Your task to perform on an android device: turn on wifi Image 0: 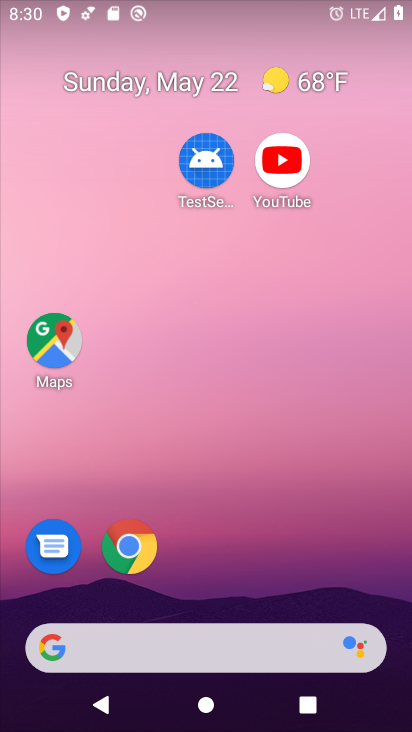
Step 0: click (187, 154)
Your task to perform on an android device: turn on wifi Image 1: 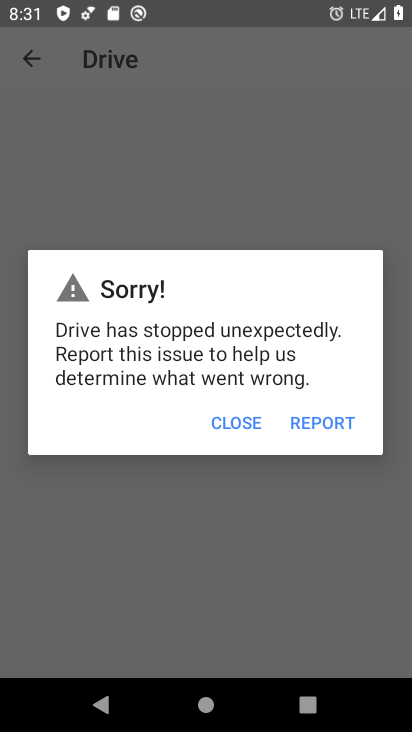
Step 1: click (238, 425)
Your task to perform on an android device: turn on wifi Image 2: 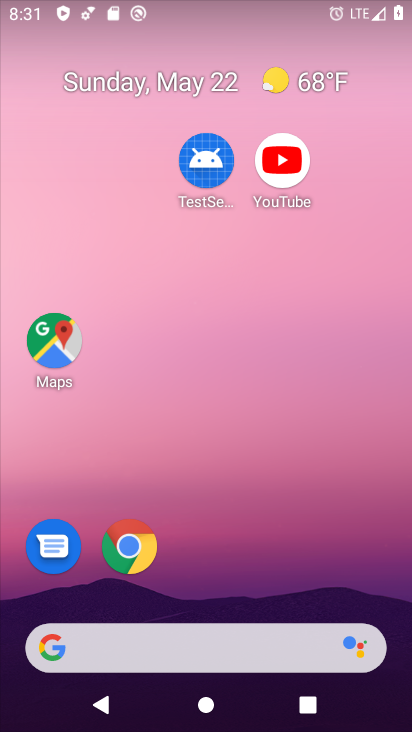
Step 2: drag from (209, 538) to (152, 61)
Your task to perform on an android device: turn on wifi Image 3: 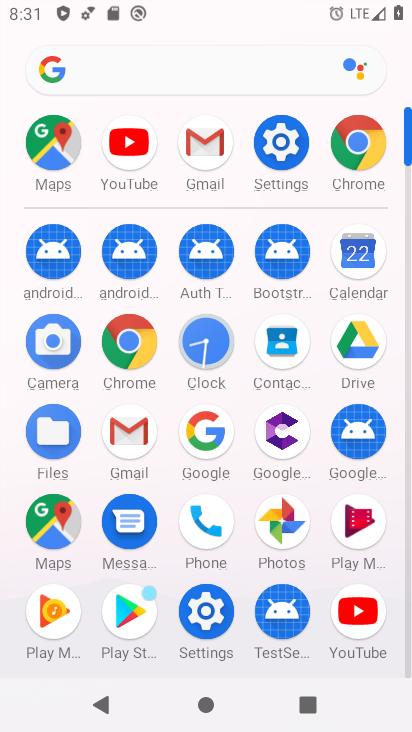
Step 3: click (276, 157)
Your task to perform on an android device: turn on wifi Image 4: 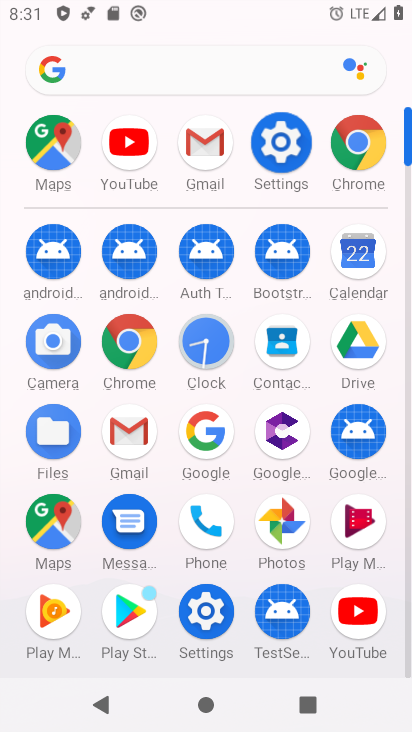
Step 4: click (281, 157)
Your task to perform on an android device: turn on wifi Image 5: 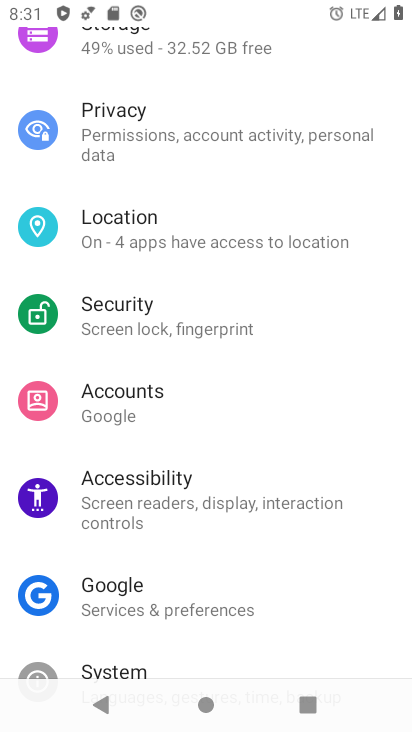
Step 5: drag from (147, 163) to (150, 470)
Your task to perform on an android device: turn on wifi Image 6: 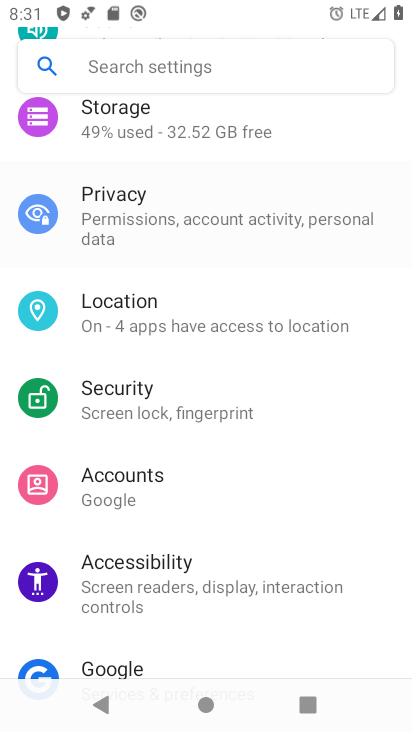
Step 6: drag from (123, 207) to (191, 610)
Your task to perform on an android device: turn on wifi Image 7: 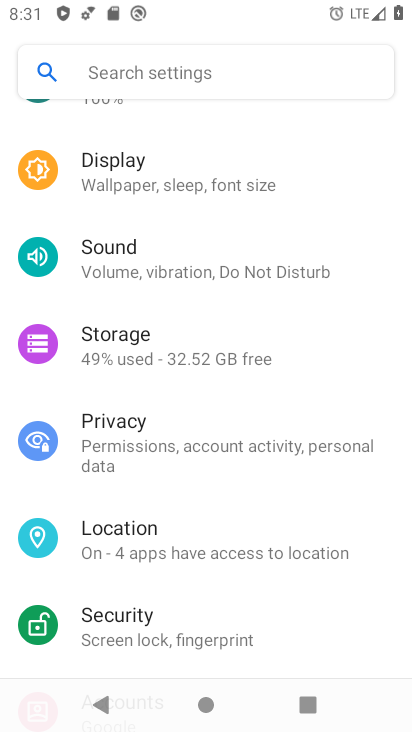
Step 7: drag from (176, 411) to (221, 597)
Your task to perform on an android device: turn on wifi Image 8: 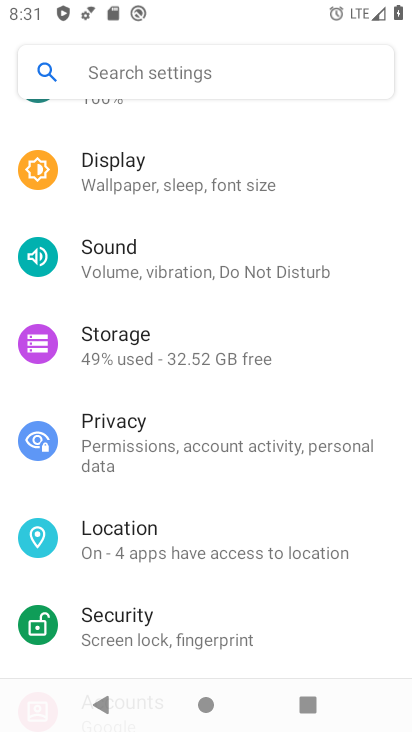
Step 8: drag from (179, 488) to (217, 605)
Your task to perform on an android device: turn on wifi Image 9: 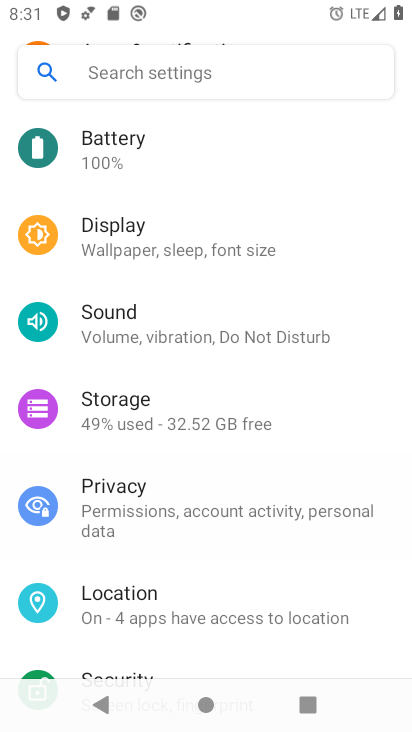
Step 9: drag from (185, 215) to (211, 479)
Your task to perform on an android device: turn on wifi Image 10: 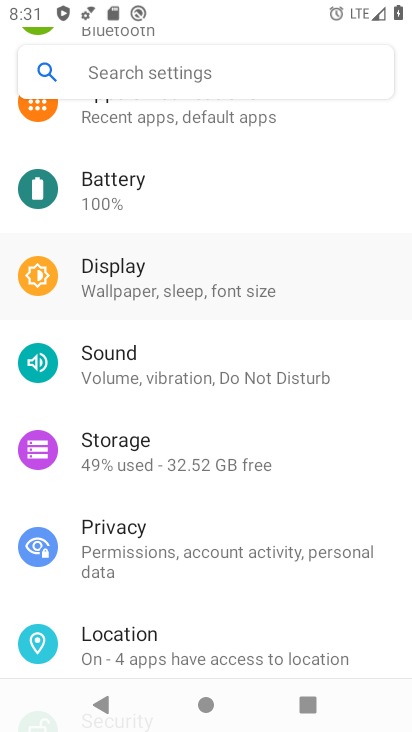
Step 10: drag from (142, 357) to (218, 604)
Your task to perform on an android device: turn on wifi Image 11: 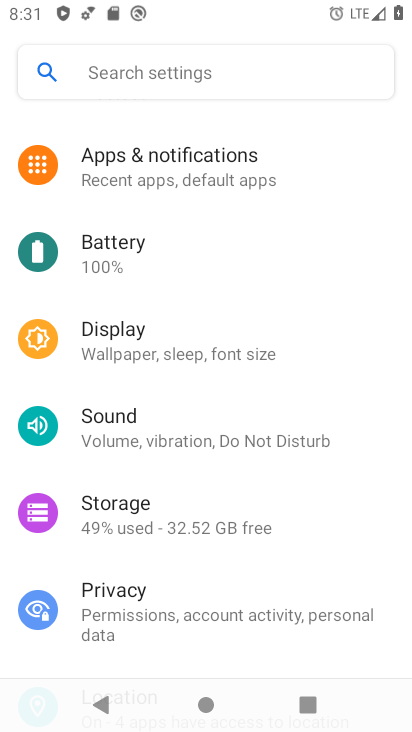
Step 11: click (182, 545)
Your task to perform on an android device: turn on wifi Image 12: 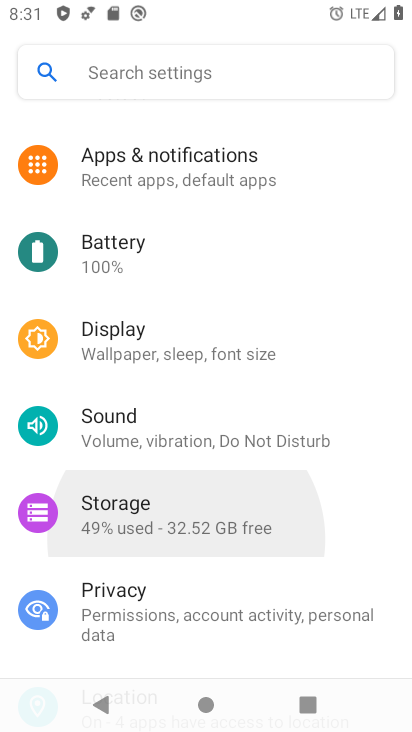
Step 12: drag from (159, 391) to (193, 576)
Your task to perform on an android device: turn on wifi Image 13: 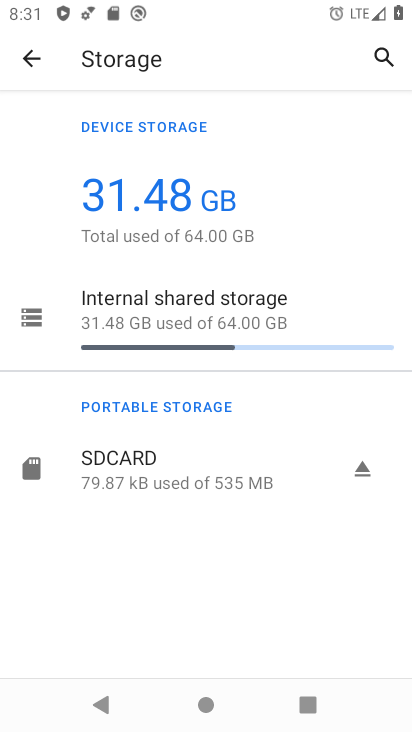
Step 13: drag from (138, 283) to (167, 563)
Your task to perform on an android device: turn on wifi Image 14: 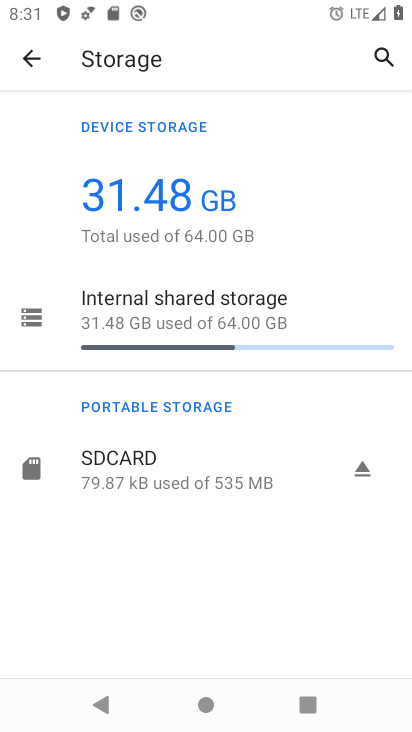
Step 14: click (21, 58)
Your task to perform on an android device: turn on wifi Image 15: 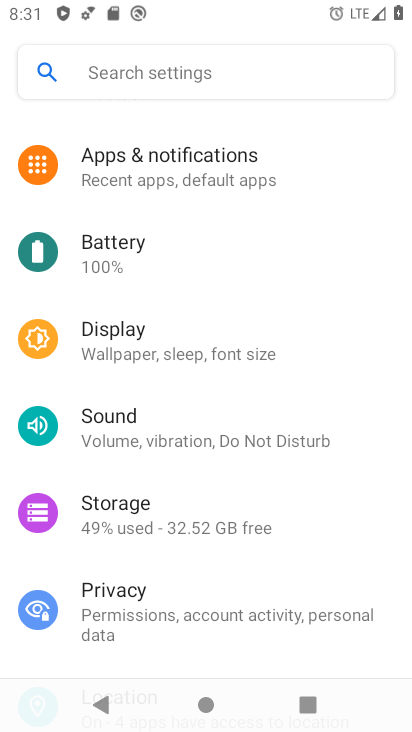
Step 15: press back button
Your task to perform on an android device: turn on wifi Image 16: 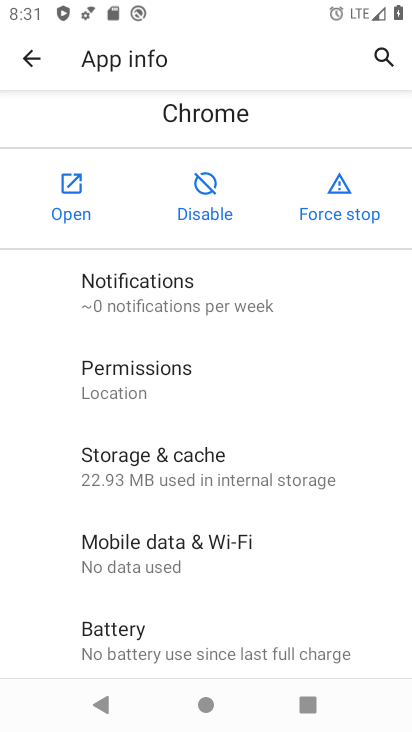
Step 16: press home button
Your task to perform on an android device: turn on wifi Image 17: 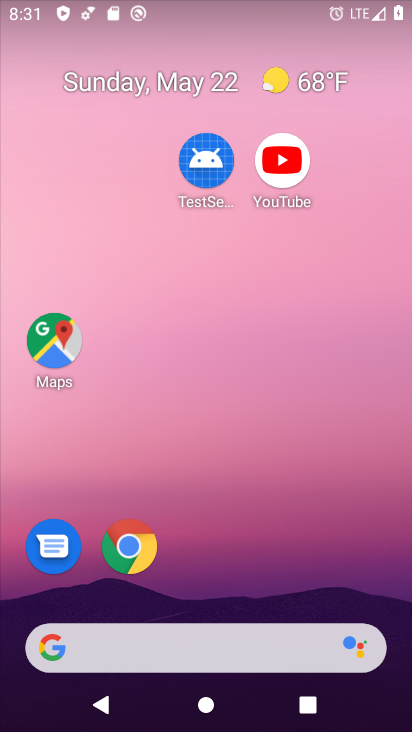
Step 17: drag from (279, 697) to (250, 167)
Your task to perform on an android device: turn on wifi Image 18: 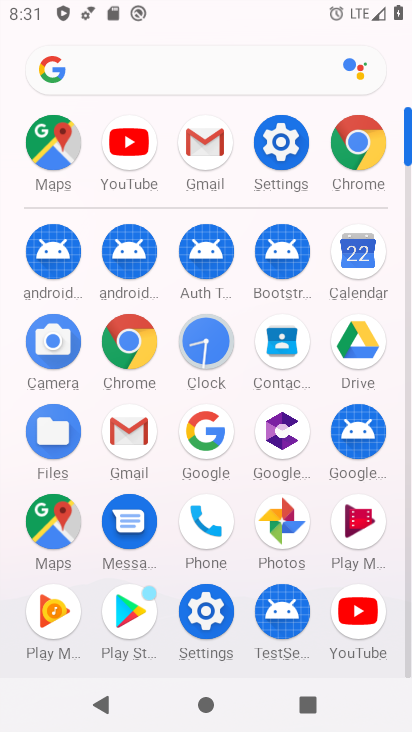
Step 18: click (282, 146)
Your task to perform on an android device: turn on wifi Image 19: 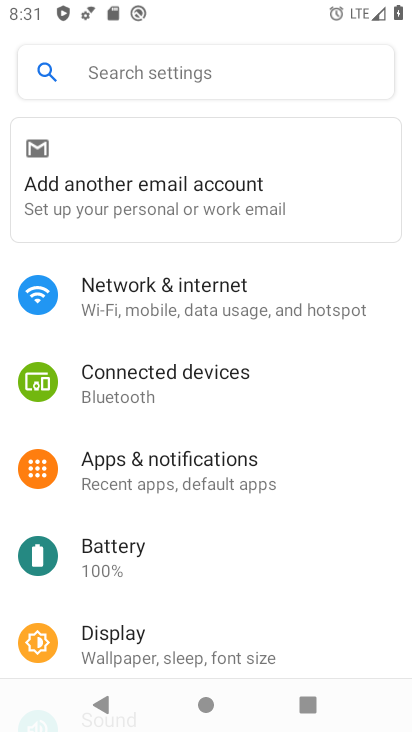
Step 19: click (198, 305)
Your task to perform on an android device: turn on wifi Image 20: 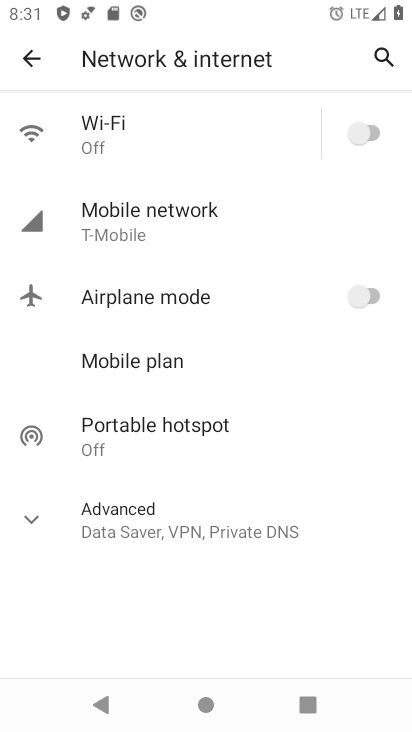
Step 20: click (358, 131)
Your task to perform on an android device: turn on wifi Image 21: 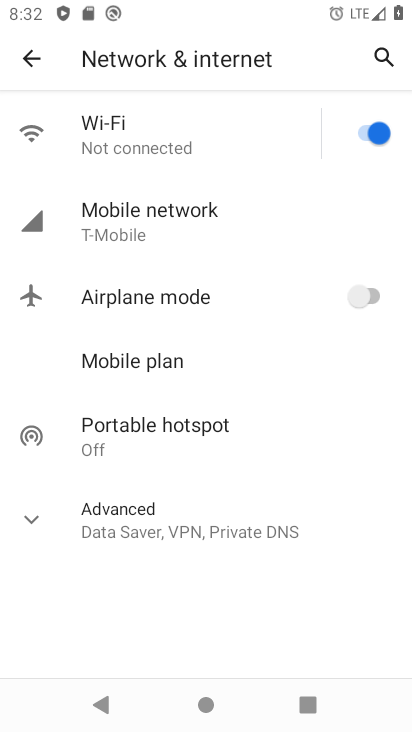
Step 21: task complete